Your task to perform on an android device: toggle translation in the chrome app Image 0: 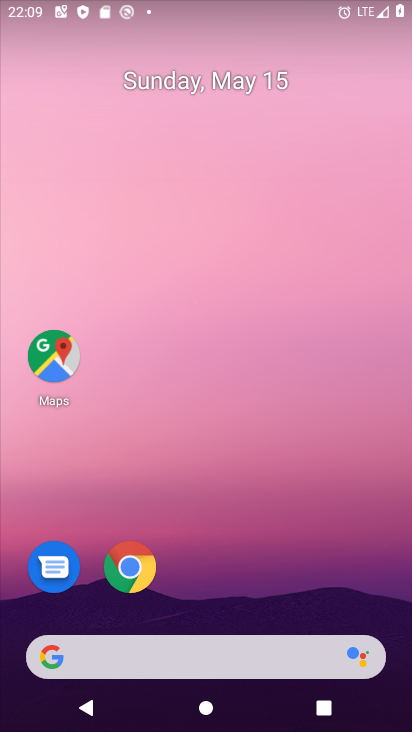
Step 0: click (128, 576)
Your task to perform on an android device: toggle translation in the chrome app Image 1: 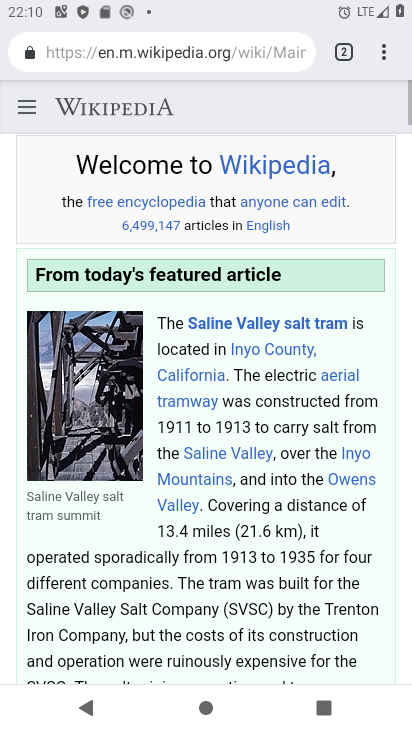
Step 1: click (380, 57)
Your task to perform on an android device: toggle translation in the chrome app Image 2: 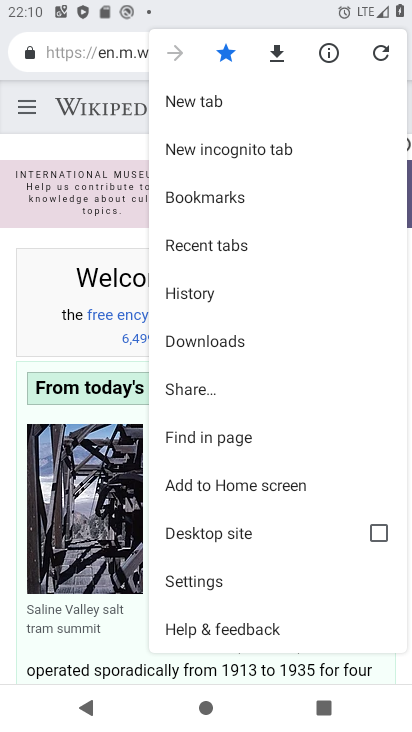
Step 2: click (225, 585)
Your task to perform on an android device: toggle translation in the chrome app Image 3: 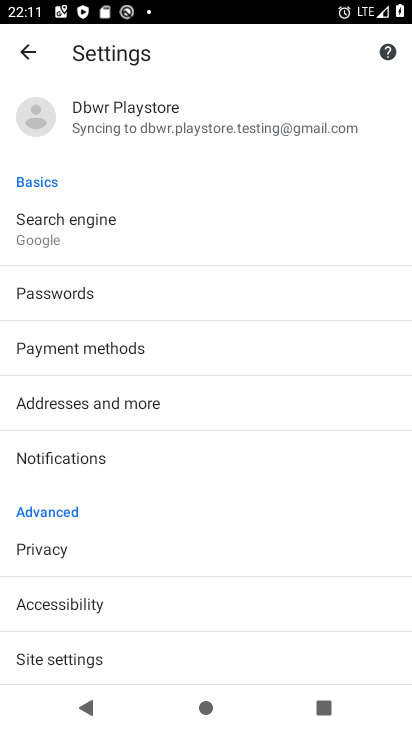
Step 3: drag from (322, 586) to (233, 185)
Your task to perform on an android device: toggle translation in the chrome app Image 4: 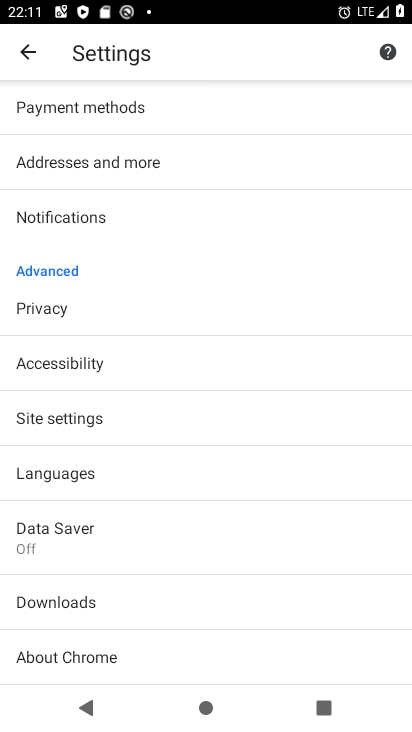
Step 4: click (96, 475)
Your task to perform on an android device: toggle translation in the chrome app Image 5: 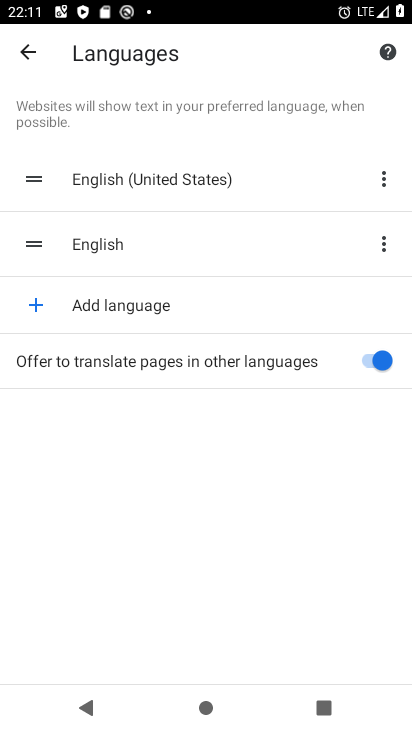
Step 5: click (372, 368)
Your task to perform on an android device: toggle translation in the chrome app Image 6: 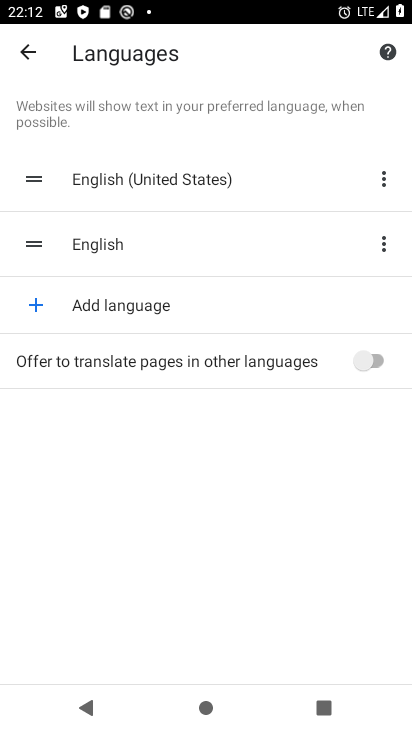
Step 6: task complete